Your task to perform on an android device: Search for the new Nike Air Max 270 on Nike.com Image 0: 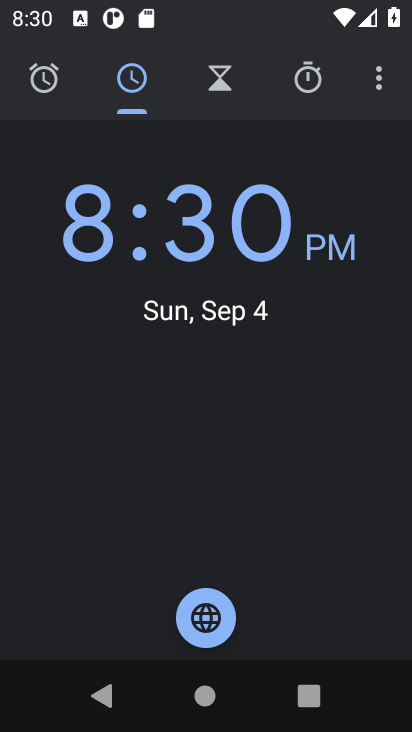
Step 0: press home button
Your task to perform on an android device: Search for the new Nike Air Max 270 on Nike.com Image 1: 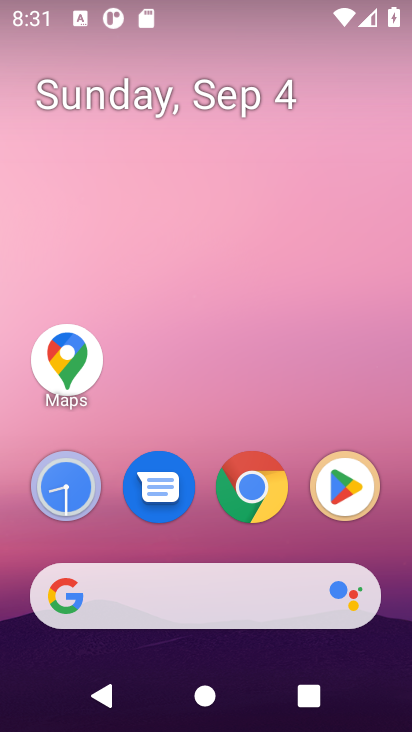
Step 1: click (175, 576)
Your task to perform on an android device: Search for the new Nike Air Max 270 on Nike.com Image 2: 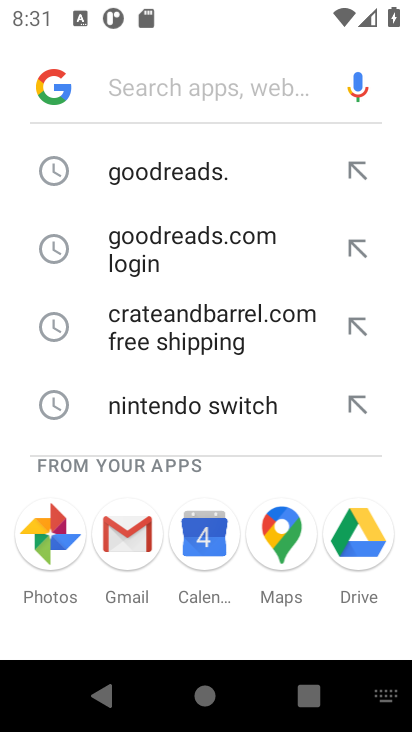
Step 2: type " Nike.com"
Your task to perform on an android device: Search for the new Nike Air Max 270 on Nike.com Image 3: 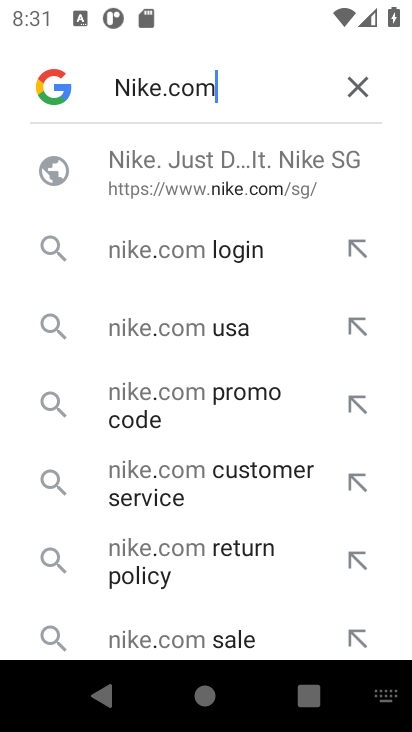
Step 3: click (269, 171)
Your task to perform on an android device: Search for the new Nike Air Max 270 on Nike.com Image 4: 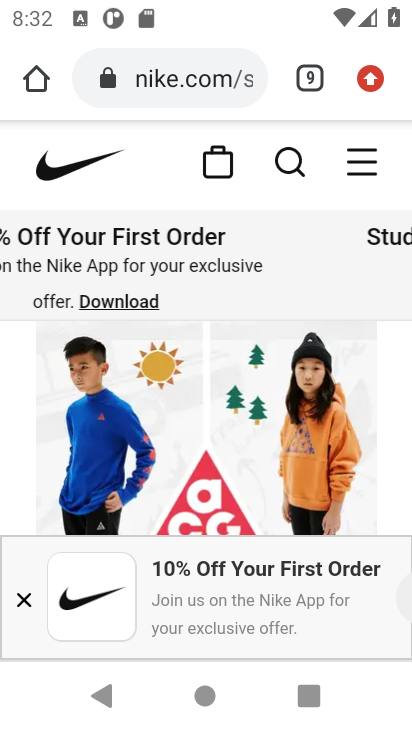
Step 4: click (281, 152)
Your task to perform on an android device: Search for the new Nike Air Max 270 on Nike.com Image 5: 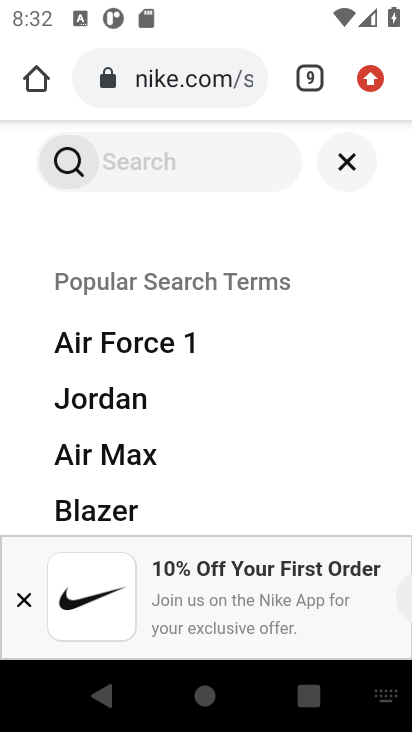
Step 5: type "Nike Air Max 270 "
Your task to perform on an android device: Search for the new Nike Air Max 270 on Nike.com Image 6: 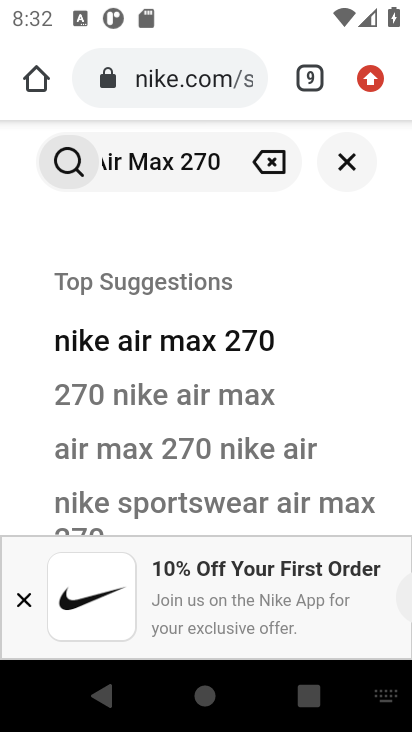
Step 6: click (74, 338)
Your task to perform on an android device: Search for the new Nike Air Max 270 on Nike.com Image 7: 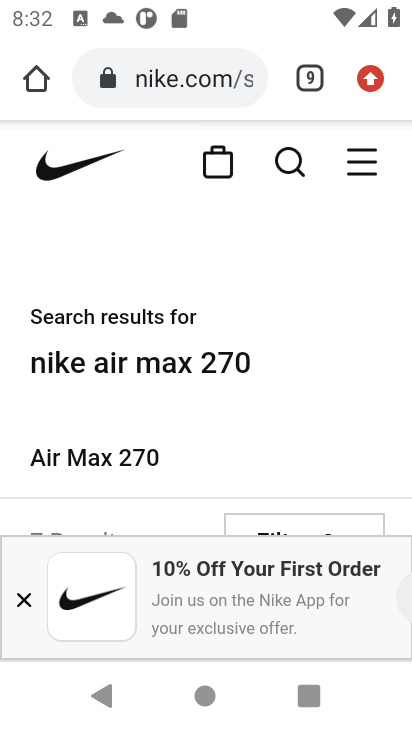
Step 7: task complete